Your task to perform on an android device: Open my contact list Image 0: 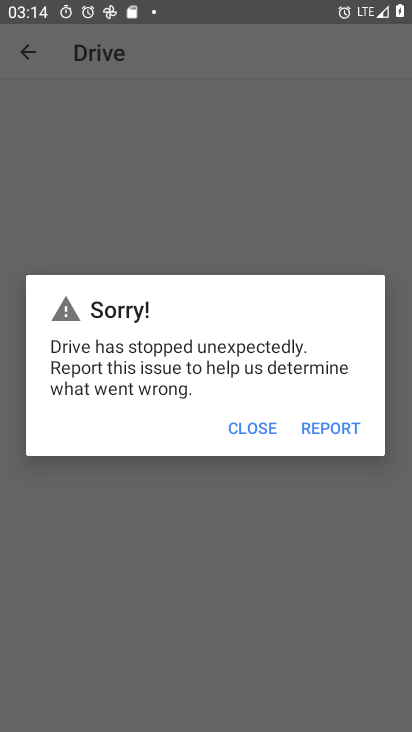
Step 0: press home button
Your task to perform on an android device: Open my contact list Image 1: 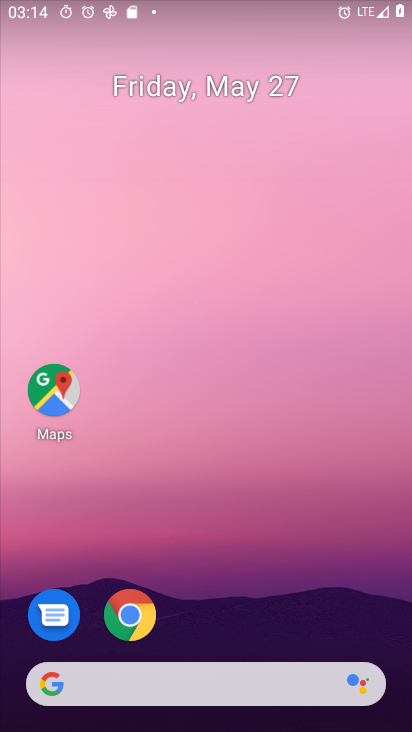
Step 1: drag from (378, 616) to (384, 247)
Your task to perform on an android device: Open my contact list Image 2: 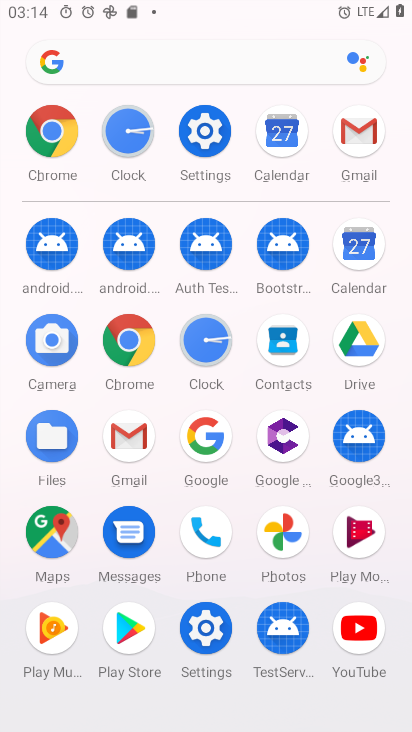
Step 2: click (288, 343)
Your task to perform on an android device: Open my contact list Image 3: 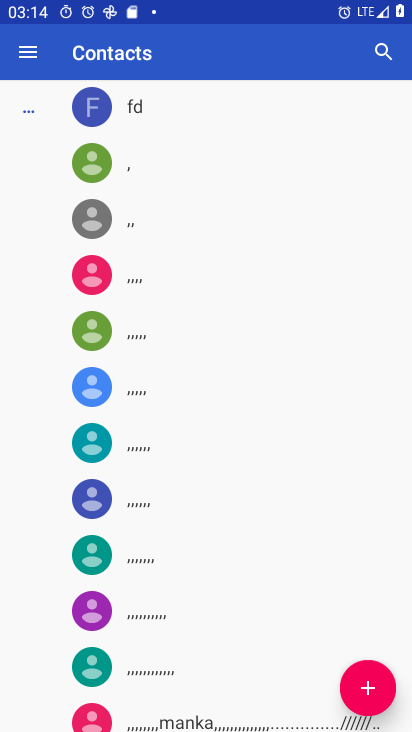
Step 3: task complete